Your task to perform on an android device: What's the weather today? Image 0: 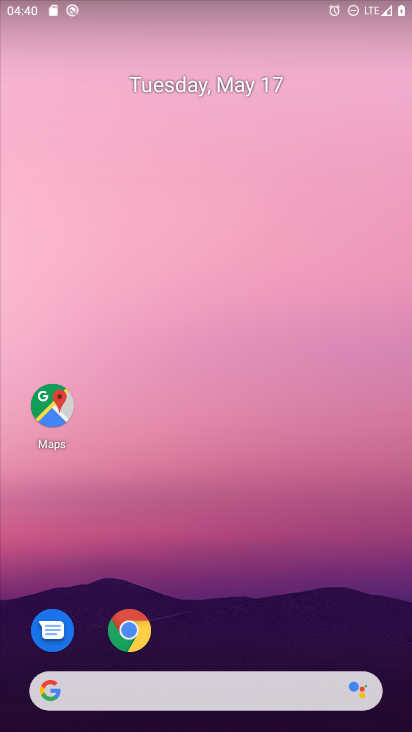
Step 0: click (150, 681)
Your task to perform on an android device: What's the weather today? Image 1: 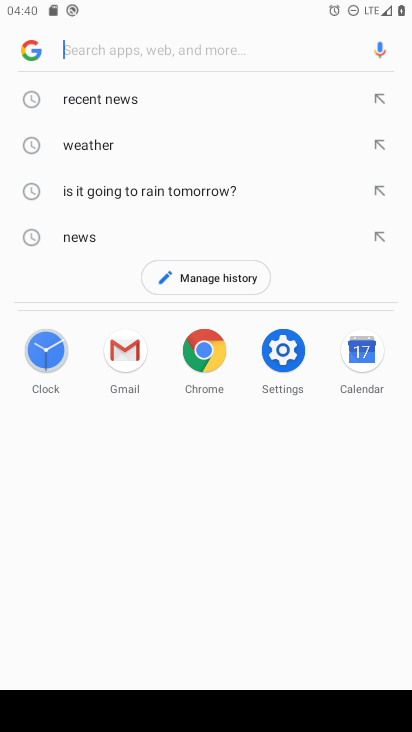
Step 1: click (99, 151)
Your task to perform on an android device: What's the weather today? Image 2: 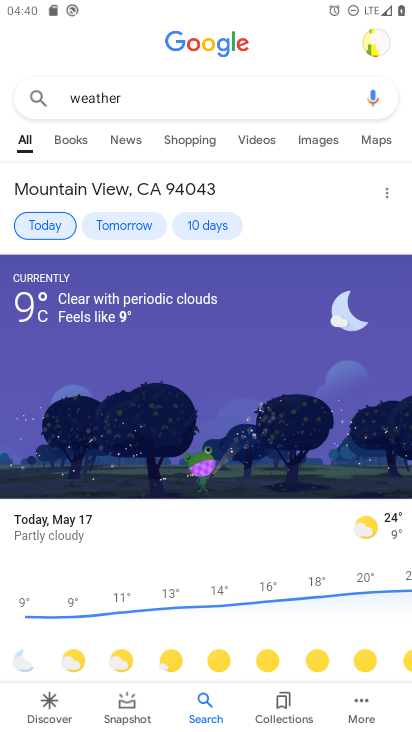
Step 2: task complete